Your task to perform on an android device: turn on notifications settings in the gmail app Image 0: 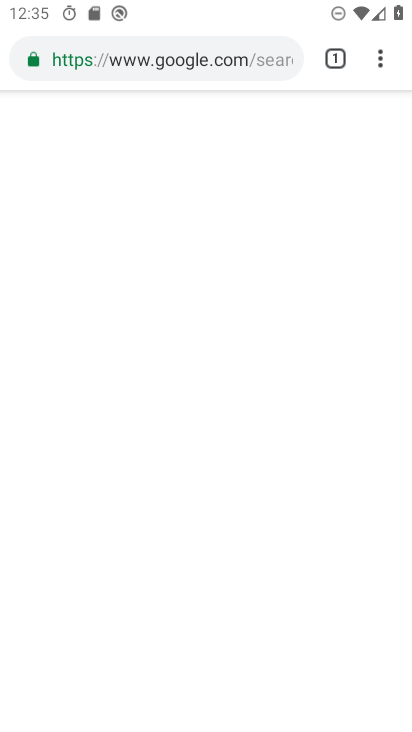
Step 0: press home button
Your task to perform on an android device: turn on notifications settings in the gmail app Image 1: 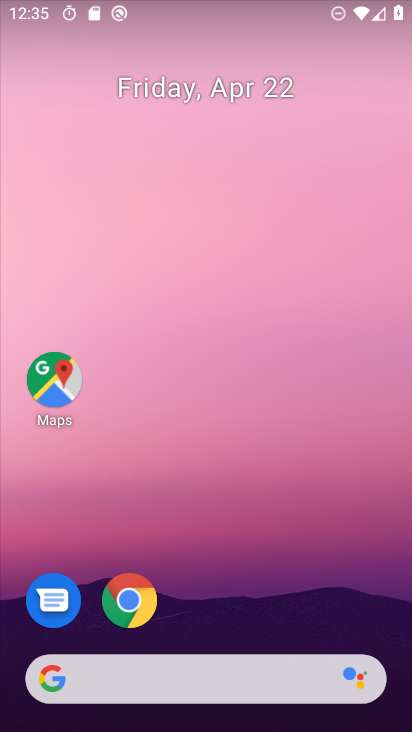
Step 1: drag from (230, 552) to (209, 71)
Your task to perform on an android device: turn on notifications settings in the gmail app Image 2: 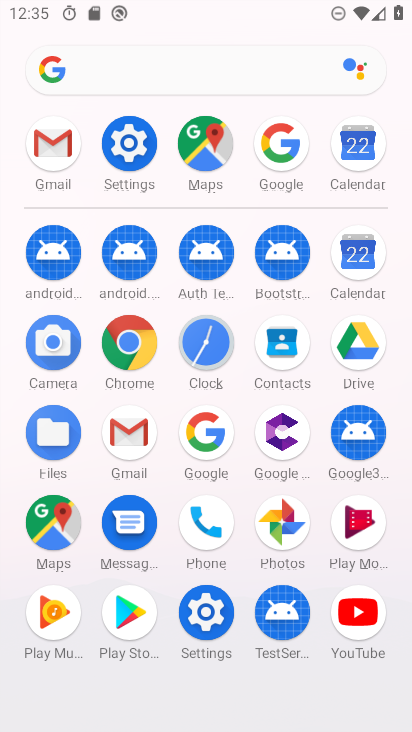
Step 2: click (52, 142)
Your task to perform on an android device: turn on notifications settings in the gmail app Image 3: 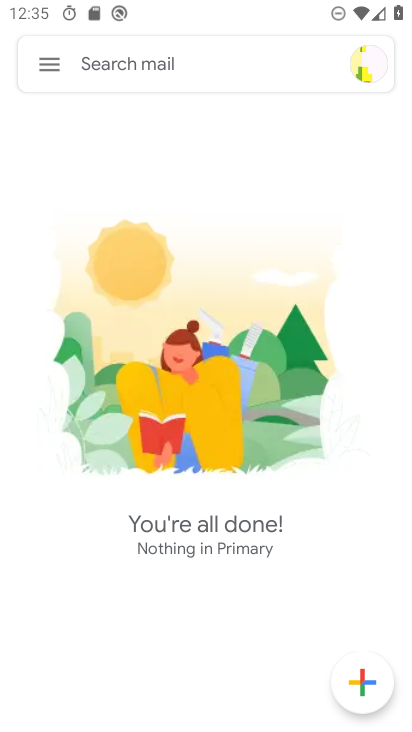
Step 3: click (53, 64)
Your task to perform on an android device: turn on notifications settings in the gmail app Image 4: 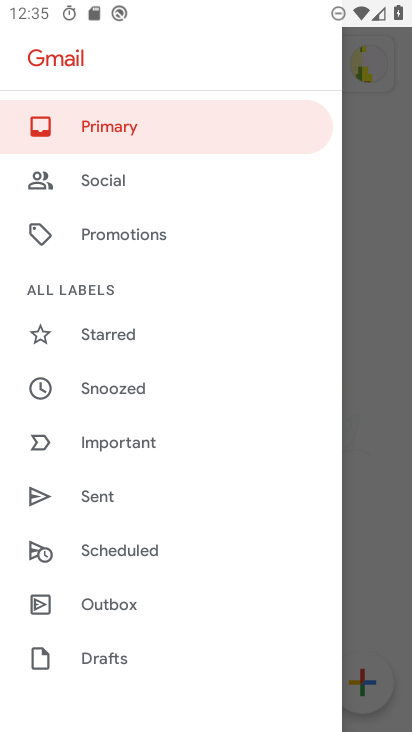
Step 4: drag from (138, 522) to (158, 419)
Your task to perform on an android device: turn on notifications settings in the gmail app Image 5: 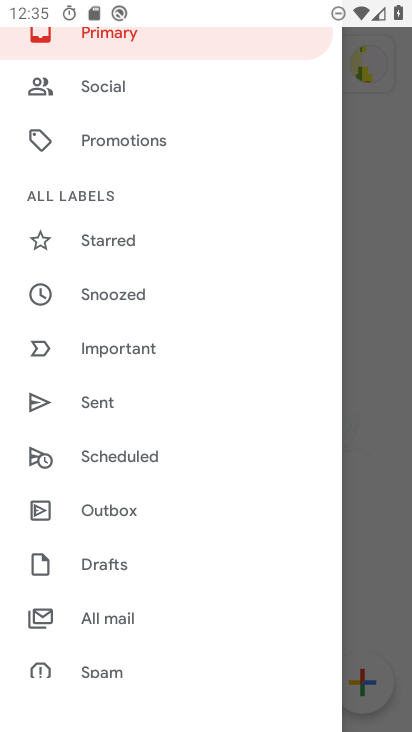
Step 5: drag from (150, 488) to (188, 398)
Your task to perform on an android device: turn on notifications settings in the gmail app Image 6: 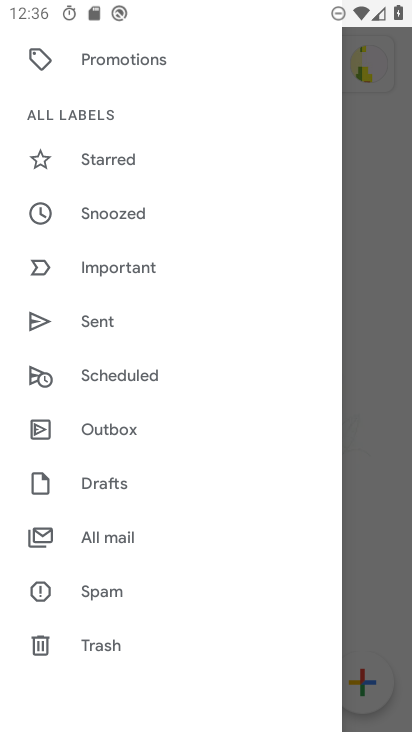
Step 6: drag from (153, 509) to (189, 420)
Your task to perform on an android device: turn on notifications settings in the gmail app Image 7: 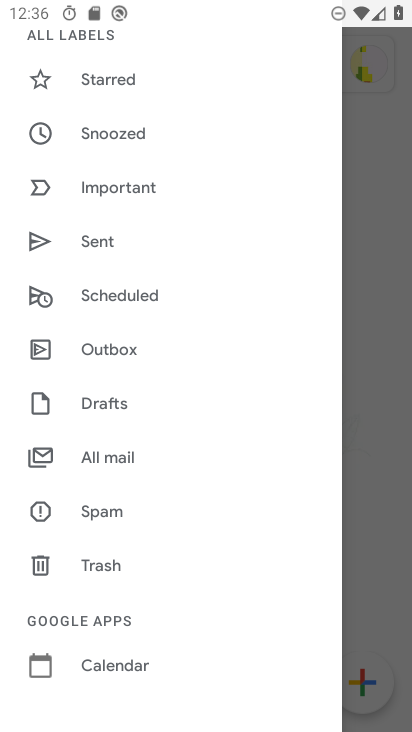
Step 7: drag from (144, 541) to (183, 463)
Your task to perform on an android device: turn on notifications settings in the gmail app Image 8: 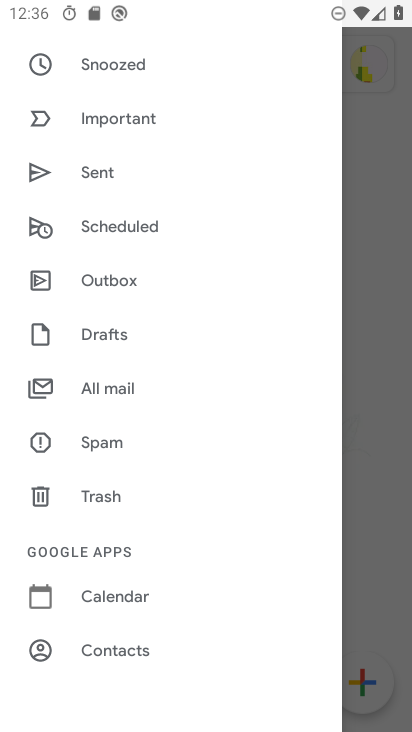
Step 8: drag from (154, 558) to (196, 485)
Your task to perform on an android device: turn on notifications settings in the gmail app Image 9: 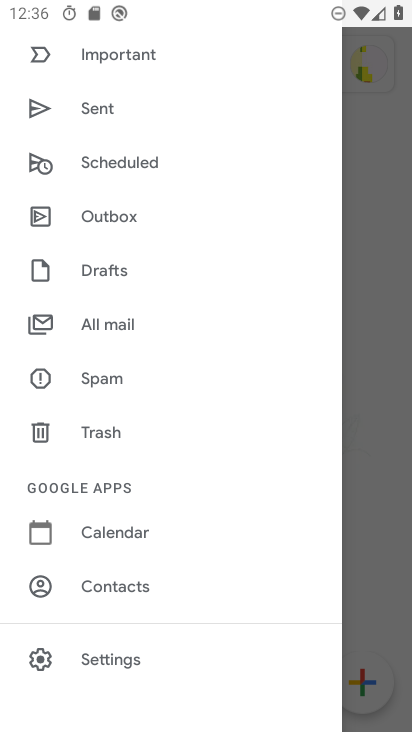
Step 9: drag from (164, 557) to (216, 451)
Your task to perform on an android device: turn on notifications settings in the gmail app Image 10: 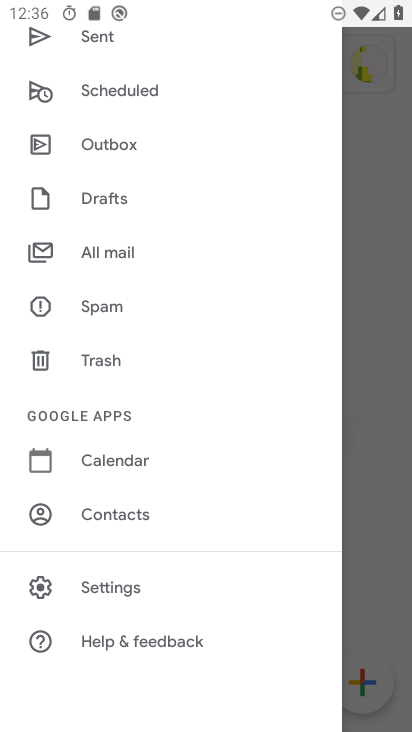
Step 10: click (131, 590)
Your task to perform on an android device: turn on notifications settings in the gmail app Image 11: 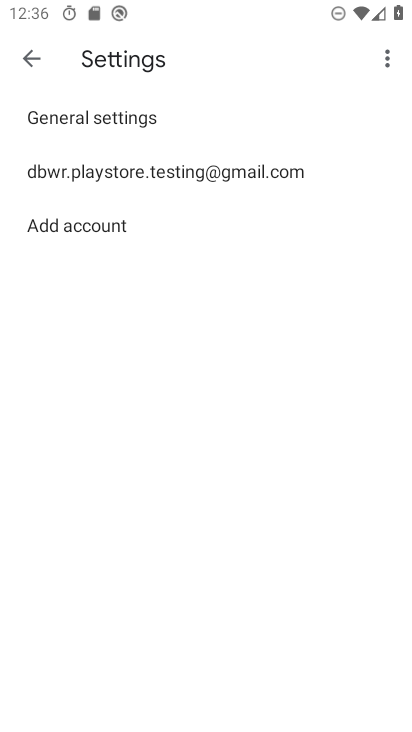
Step 11: click (168, 175)
Your task to perform on an android device: turn on notifications settings in the gmail app Image 12: 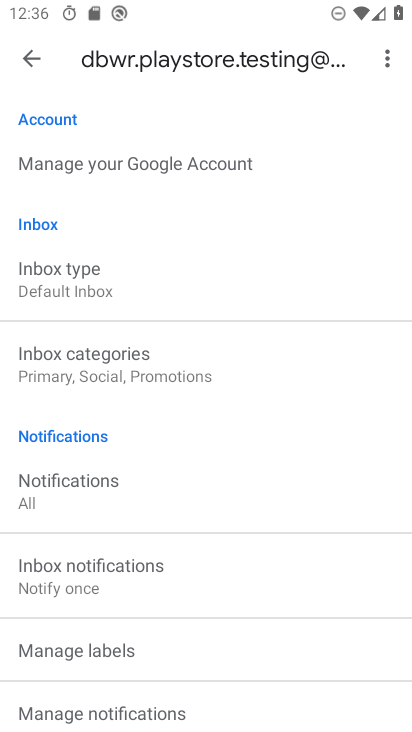
Step 12: drag from (191, 494) to (219, 322)
Your task to perform on an android device: turn on notifications settings in the gmail app Image 13: 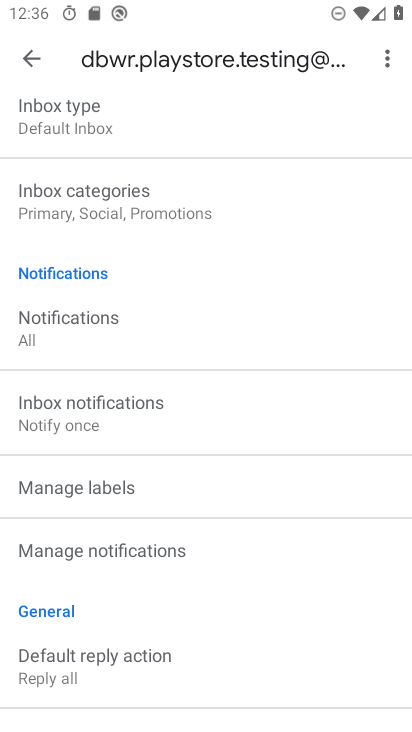
Step 13: click (175, 552)
Your task to perform on an android device: turn on notifications settings in the gmail app Image 14: 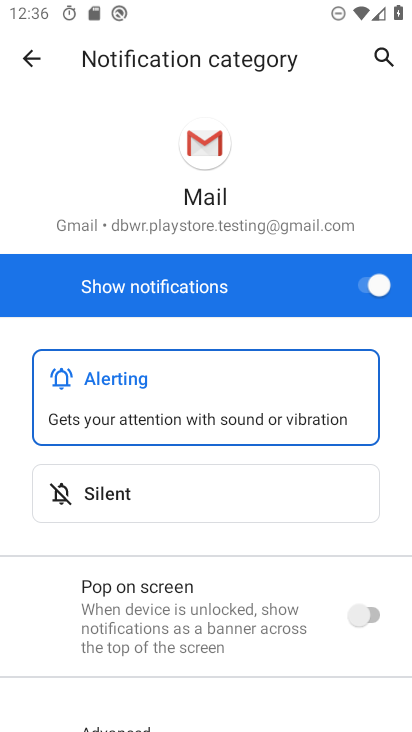
Step 14: task complete